Your task to perform on an android device: all mails in gmail Image 0: 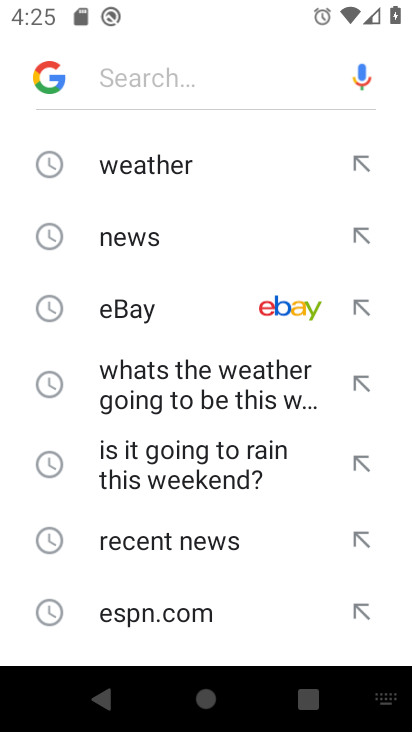
Step 0: press home button
Your task to perform on an android device: all mails in gmail Image 1: 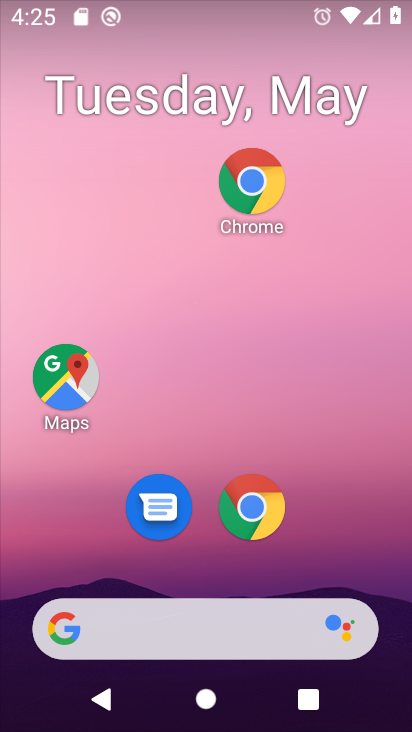
Step 1: drag from (377, 471) to (386, 90)
Your task to perform on an android device: all mails in gmail Image 2: 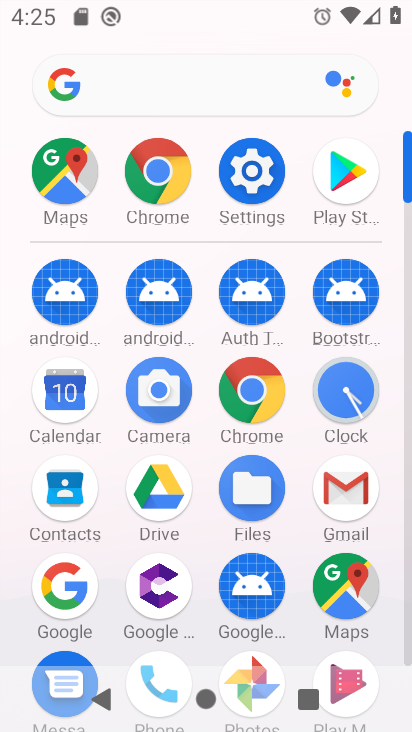
Step 2: click (354, 508)
Your task to perform on an android device: all mails in gmail Image 3: 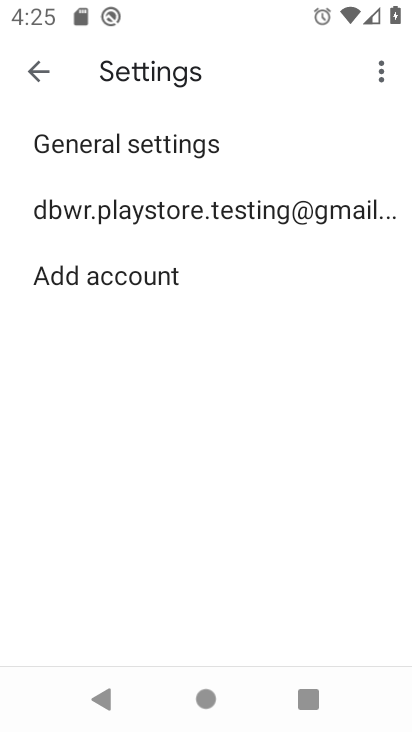
Step 3: click (37, 73)
Your task to perform on an android device: all mails in gmail Image 4: 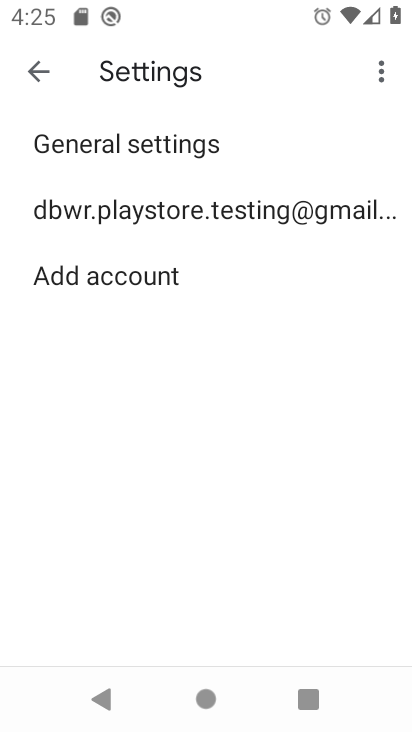
Step 4: click (37, 73)
Your task to perform on an android device: all mails in gmail Image 5: 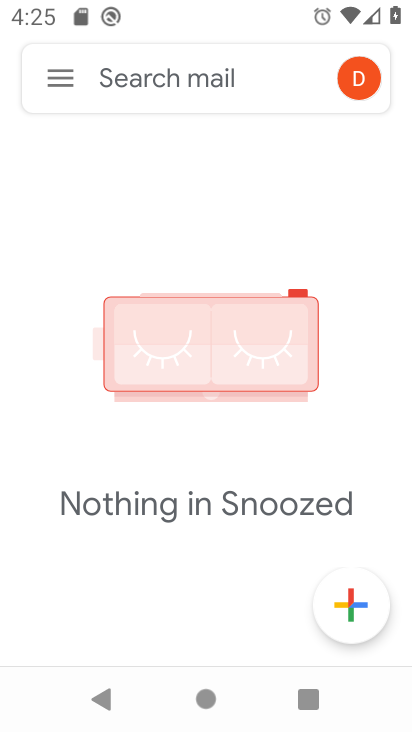
Step 5: click (57, 85)
Your task to perform on an android device: all mails in gmail Image 6: 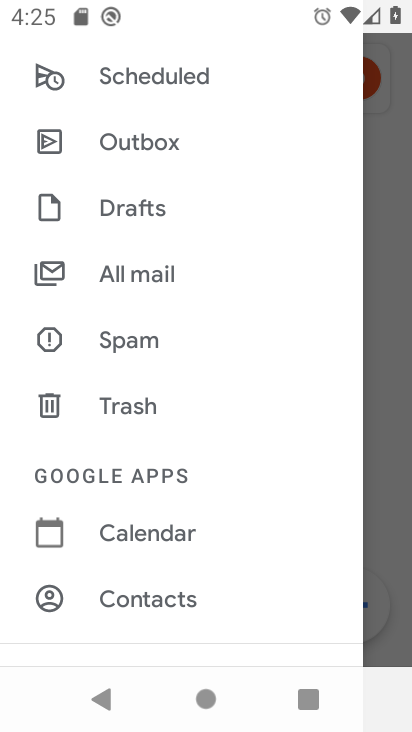
Step 6: click (115, 267)
Your task to perform on an android device: all mails in gmail Image 7: 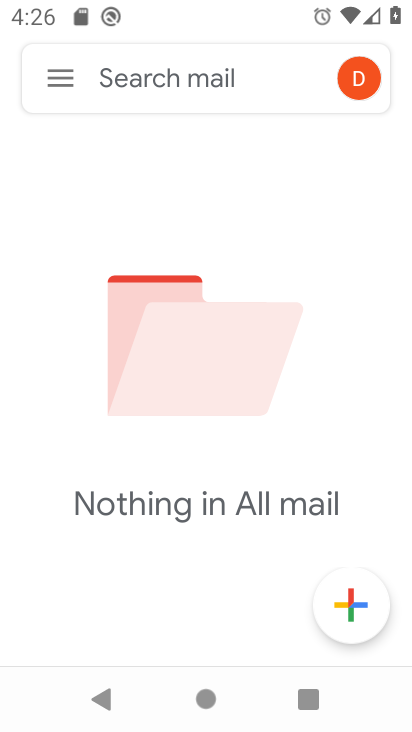
Step 7: task complete